Your task to perform on an android device: turn on wifi Image 0: 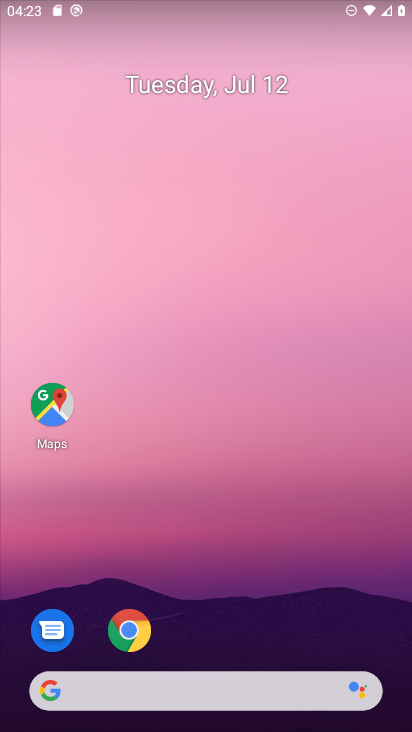
Step 0: drag from (397, 641) to (334, 246)
Your task to perform on an android device: turn on wifi Image 1: 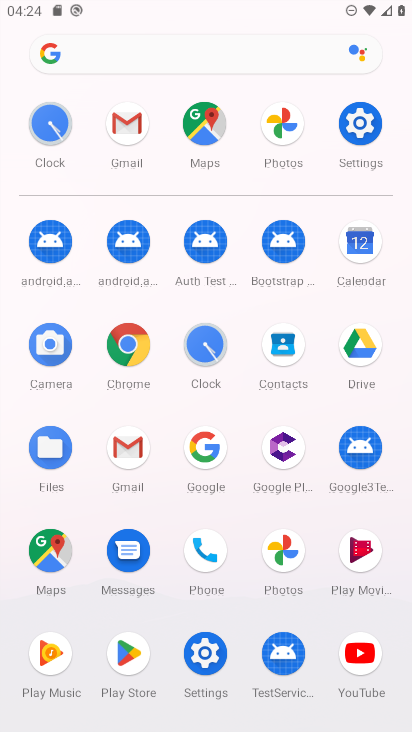
Step 1: click (205, 654)
Your task to perform on an android device: turn on wifi Image 2: 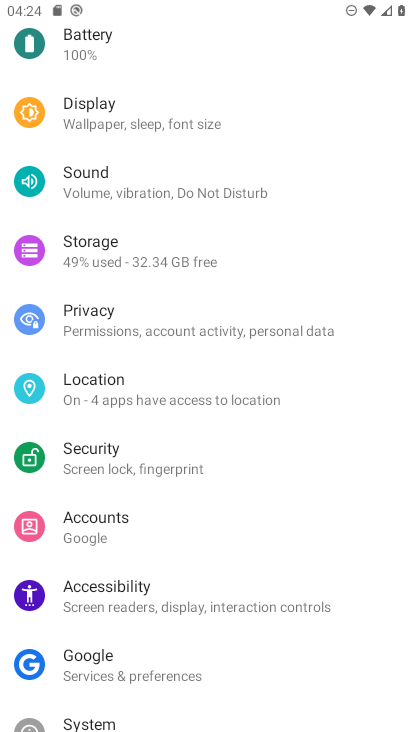
Step 2: drag from (287, 80) to (301, 423)
Your task to perform on an android device: turn on wifi Image 3: 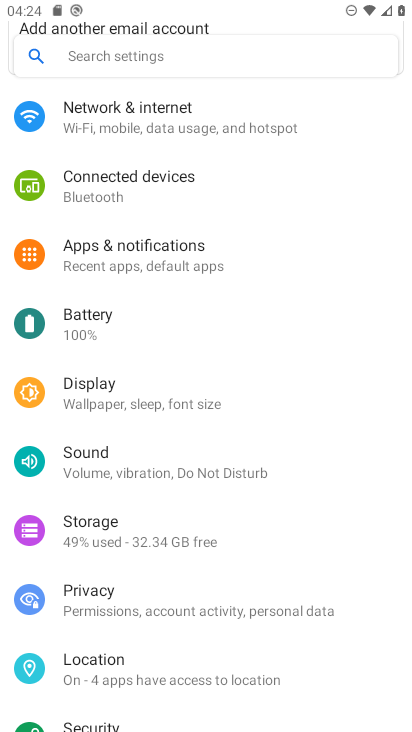
Step 3: click (120, 108)
Your task to perform on an android device: turn on wifi Image 4: 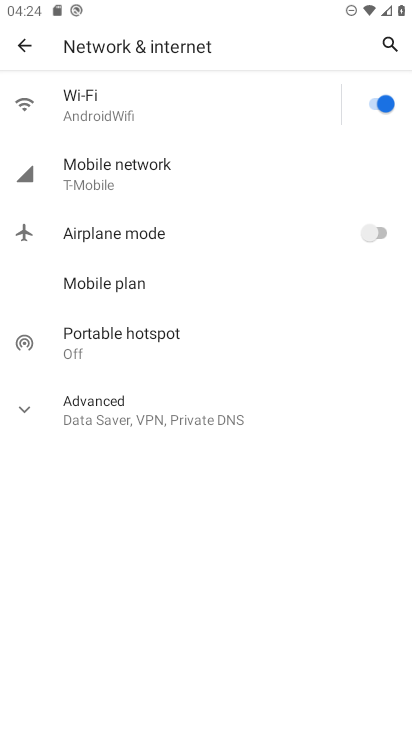
Step 4: task complete